Your task to perform on an android device: Open privacy settings Image 0: 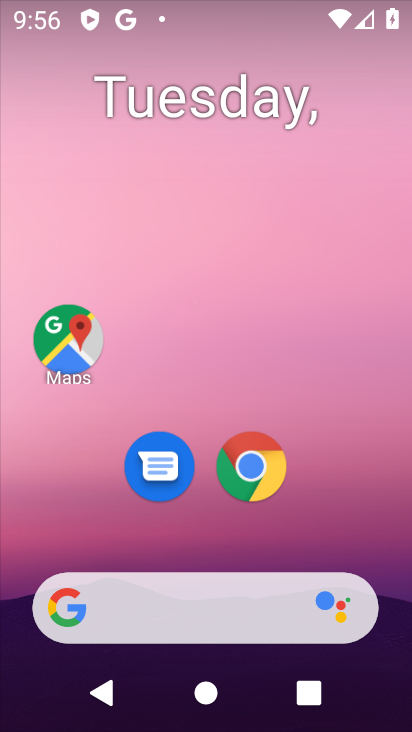
Step 0: drag from (359, 471) to (325, 36)
Your task to perform on an android device: Open privacy settings Image 1: 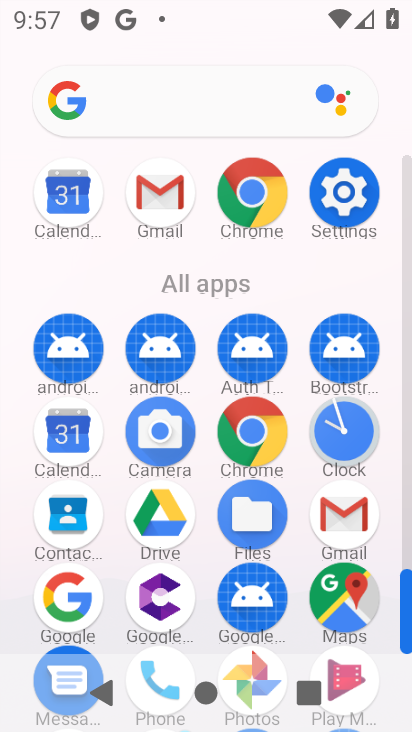
Step 1: click (341, 185)
Your task to perform on an android device: Open privacy settings Image 2: 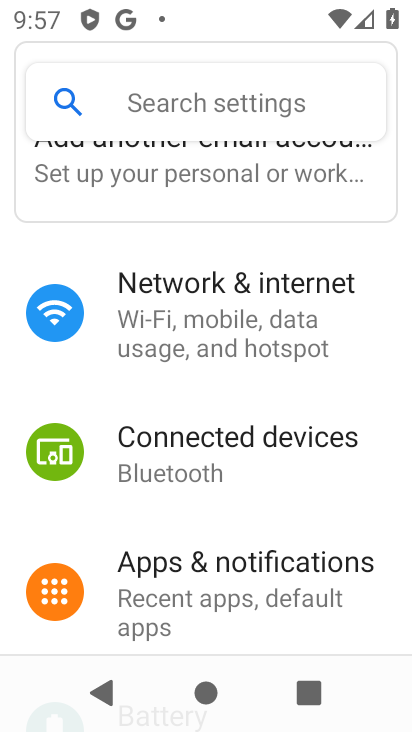
Step 2: drag from (244, 488) to (294, 95)
Your task to perform on an android device: Open privacy settings Image 3: 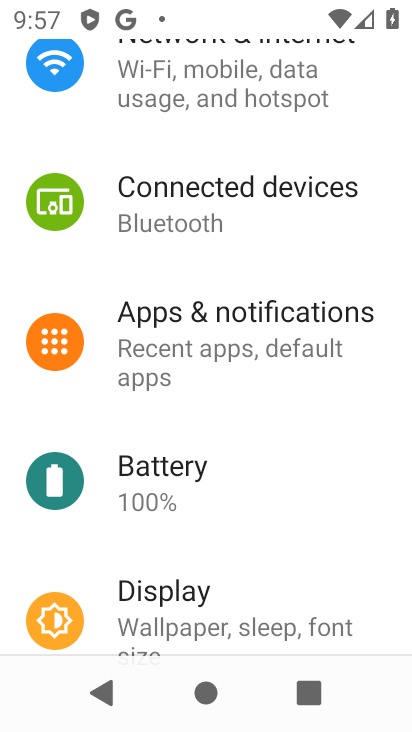
Step 3: drag from (197, 480) to (258, 94)
Your task to perform on an android device: Open privacy settings Image 4: 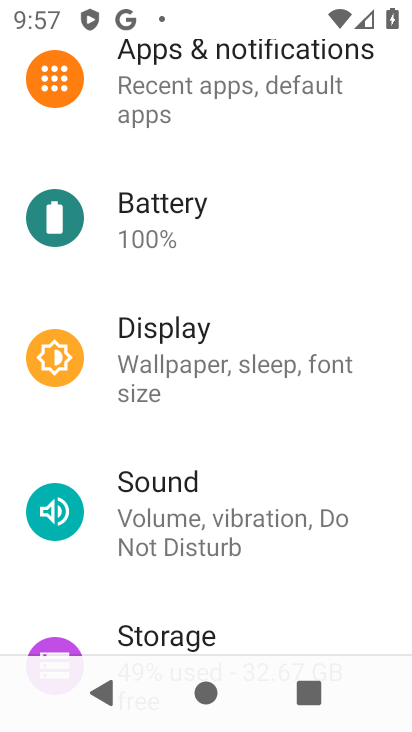
Step 4: drag from (111, 569) to (228, 237)
Your task to perform on an android device: Open privacy settings Image 5: 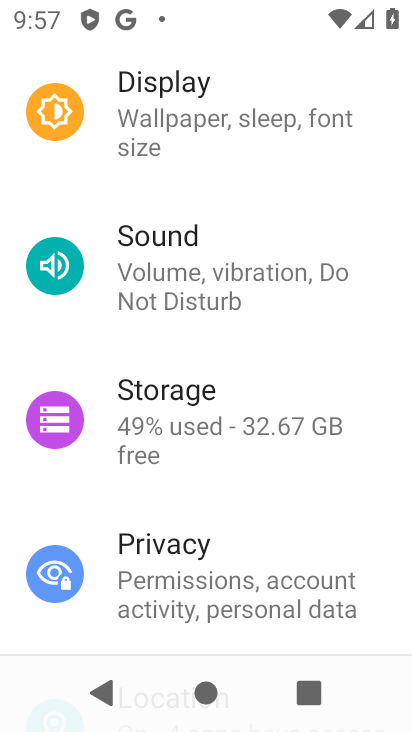
Step 5: drag from (189, 513) to (248, 234)
Your task to perform on an android device: Open privacy settings Image 6: 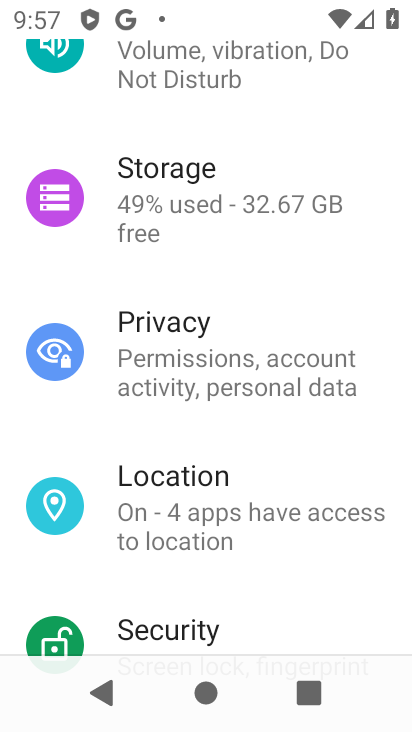
Step 6: click (190, 323)
Your task to perform on an android device: Open privacy settings Image 7: 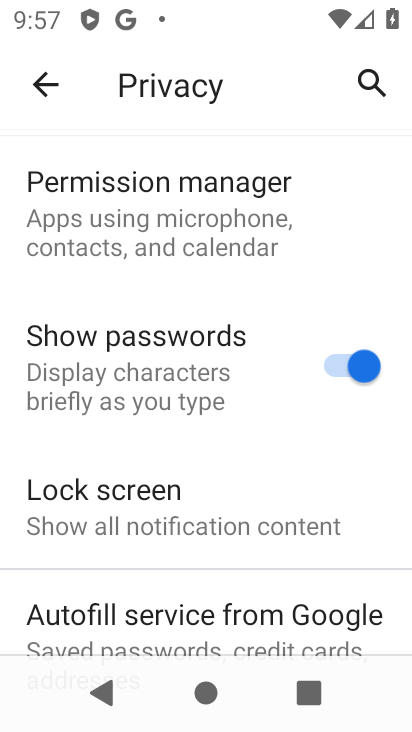
Step 7: task complete